Your task to perform on an android device: Open the map Image 0: 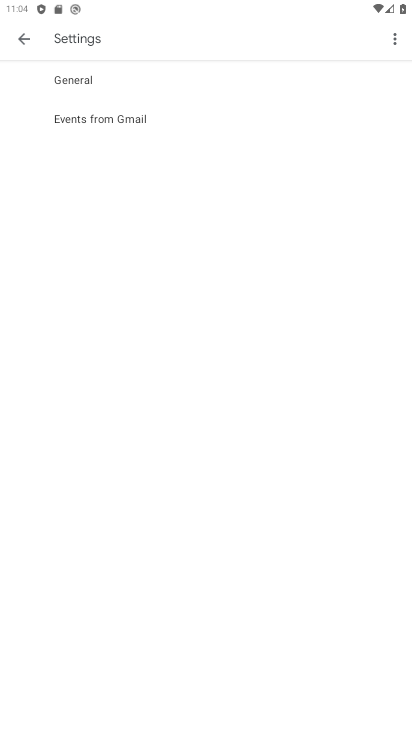
Step 0: press home button
Your task to perform on an android device: Open the map Image 1: 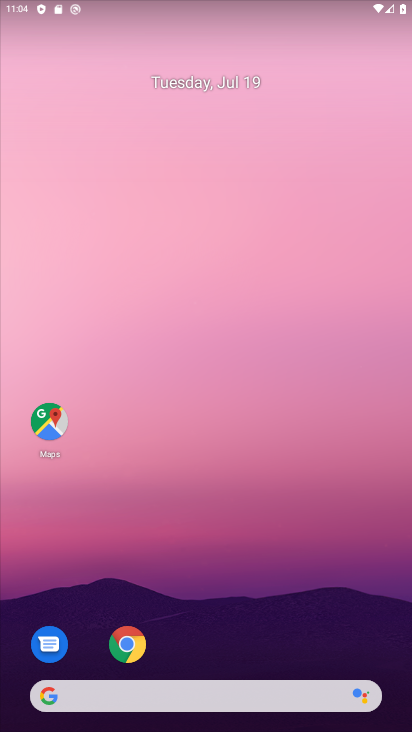
Step 1: drag from (181, 665) to (244, 64)
Your task to perform on an android device: Open the map Image 2: 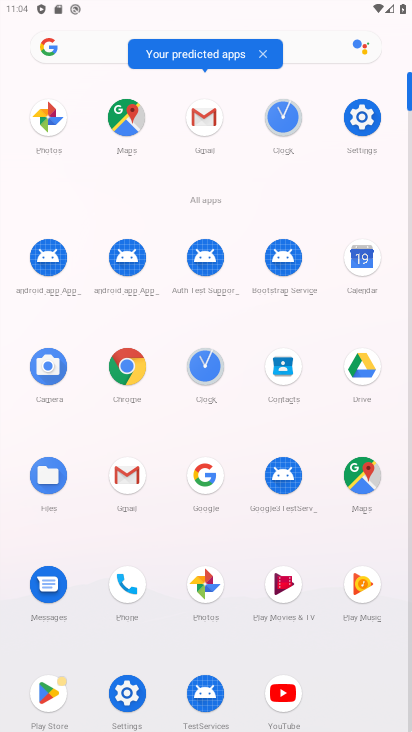
Step 2: click (360, 482)
Your task to perform on an android device: Open the map Image 3: 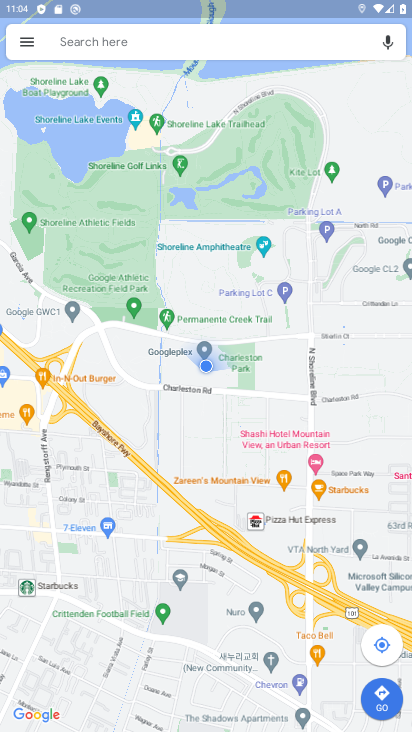
Step 3: task complete